Your task to perform on an android device: Open Chrome and go to settings Image 0: 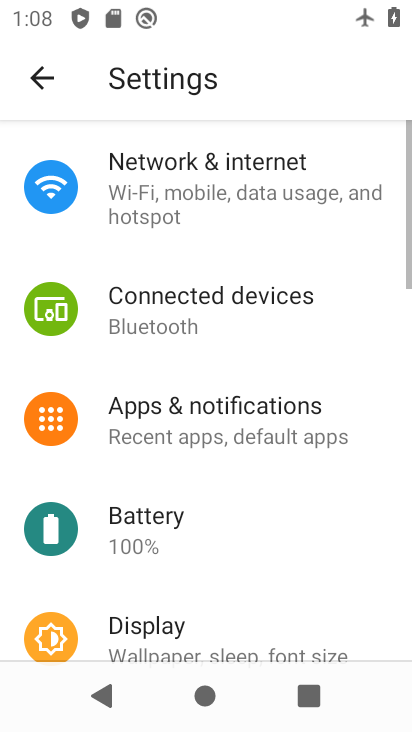
Step 0: press home button
Your task to perform on an android device: Open Chrome and go to settings Image 1: 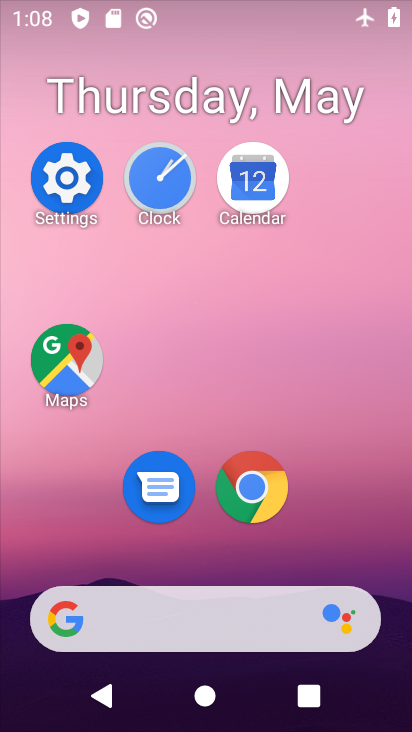
Step 1: click (278, 482)
Your task to perform on an android device: Open Chrome and go to settings Image 2: 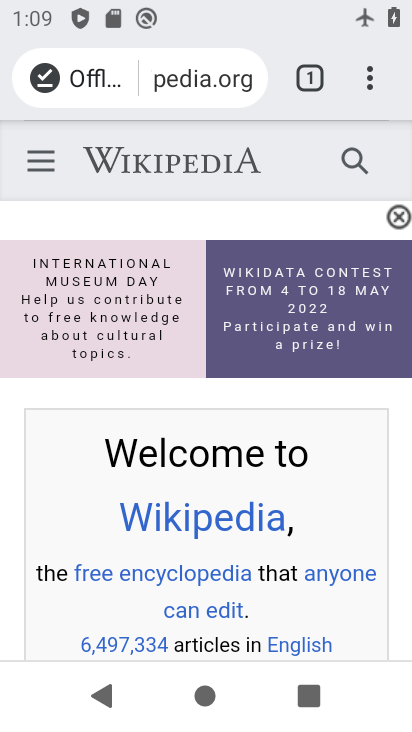
Step 2: click (373, 77)
Your task to perform on an android device: Open Chrome and go to settings Image 3: 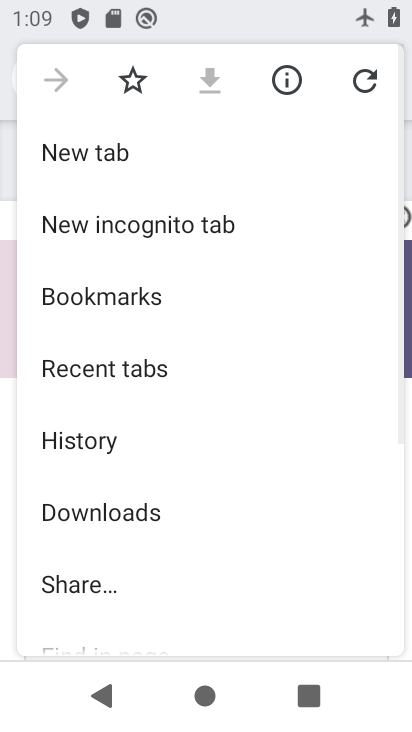
Step 3: drag from (200, 531) to (266, 199)
Your task to perform on an android device: Open Chrome and go to settings Image 4: 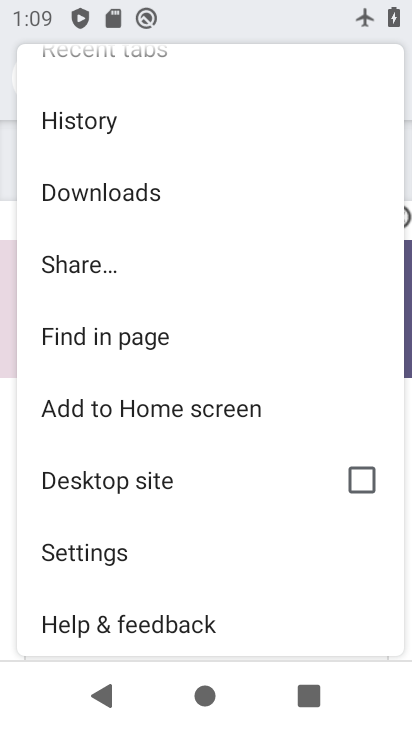
Step 4: click (150, 536)
Your task to perform on an android device: Open Chrome and go to settings Image 5: 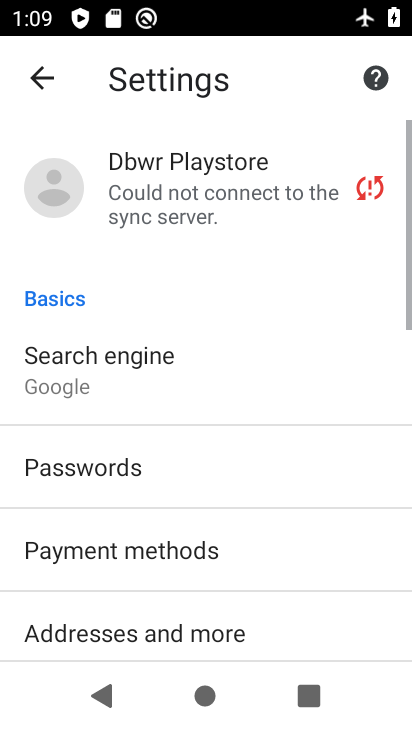
Step 5: task complete